Your task to perform on an android device: Search for Mexican restaurants on Maps Image 0: 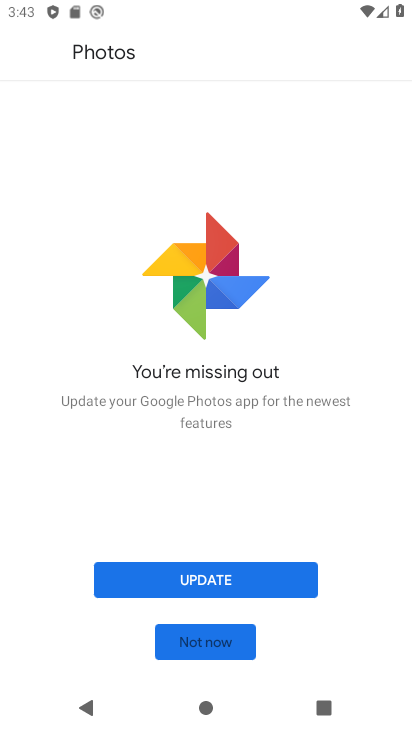
Step 0: press home button
Your task to perform on an android device: Search for Mexican restaurants on Maps Image 1: 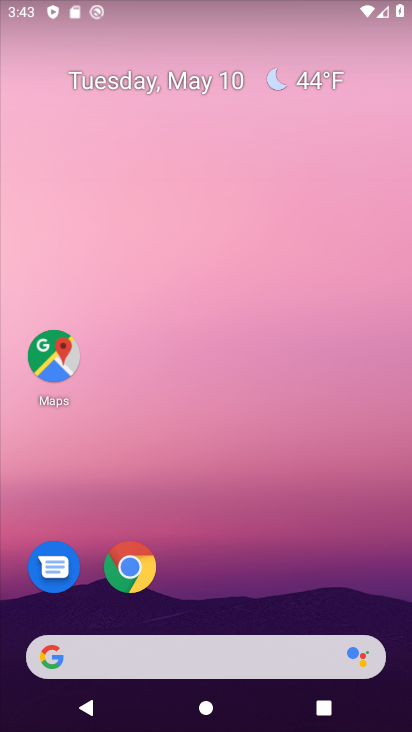
Step 1: click (53, 357)
Your task to perform on an android device: Search for Mexican restaurants on Maps Image 2: 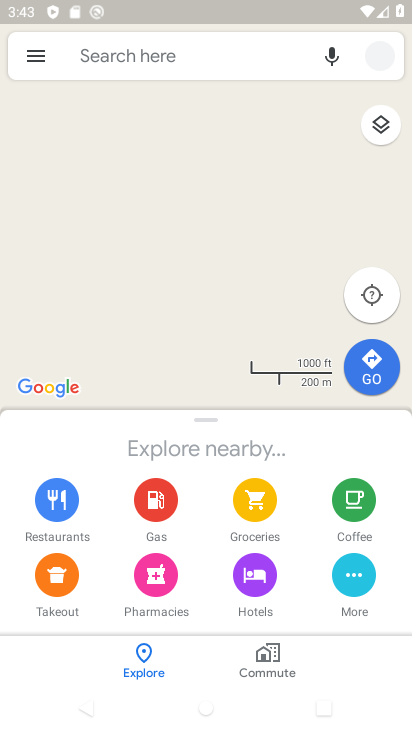
Step 2: click (206, 57)
Your task to perform on an android device: Search for Mexican restaurants on Maps Image 3: 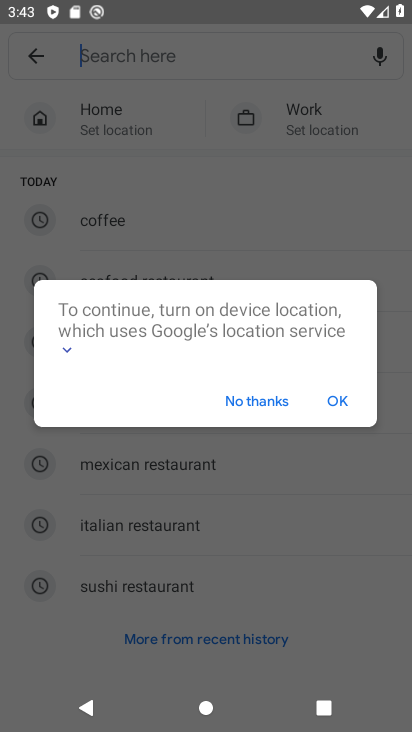
Step 3: click (270, 403)
Your task to perform on an android device: Search for Mexican restaurants on Maps Image 4: 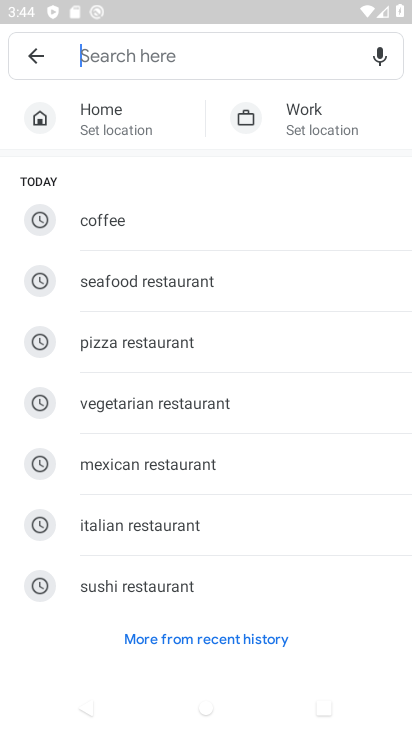
Step 4: type "Mexican restaurants"
Your task to perform on an android device: Search for Mexican restaurants on Maps Image 5: 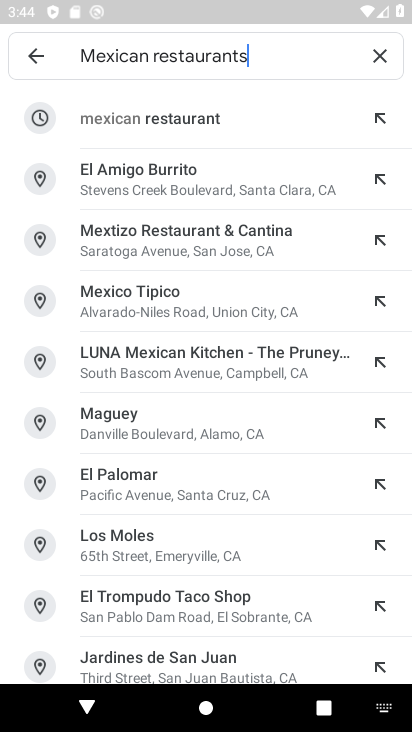
Step 5: click (131, 115)
Your task to perform on an android device: Search for Mexican restaurants on Maps Image 6: 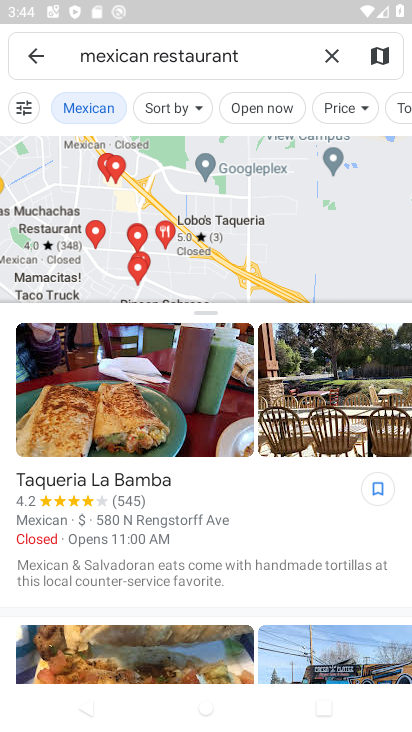
Step 6: task complete